Your task to perform on an android device: Go to internet settings Image 0: 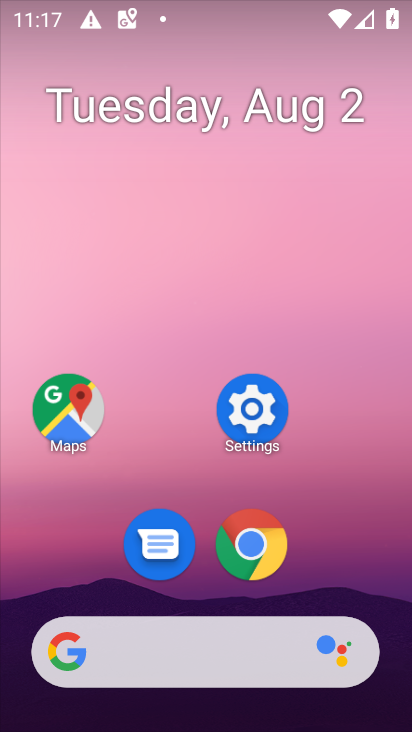
Step 0: click (252, 412)
Your task to perform on an android device: Go to internet settings Image 1: 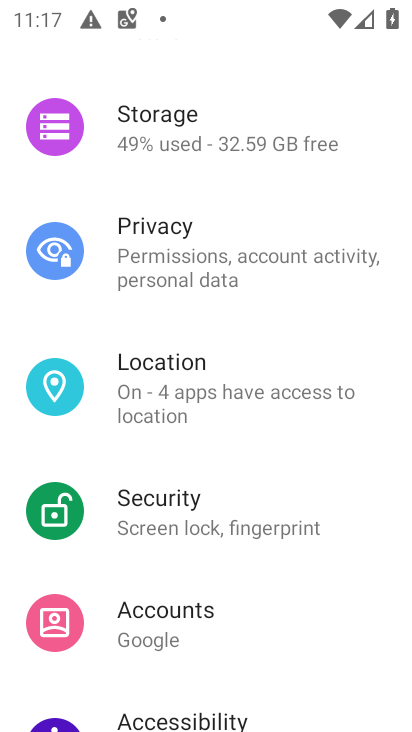
Step 1: drag from (310, 200) to (377, 671)
Your task to perform on an android device: Go to internet settings Image 2: 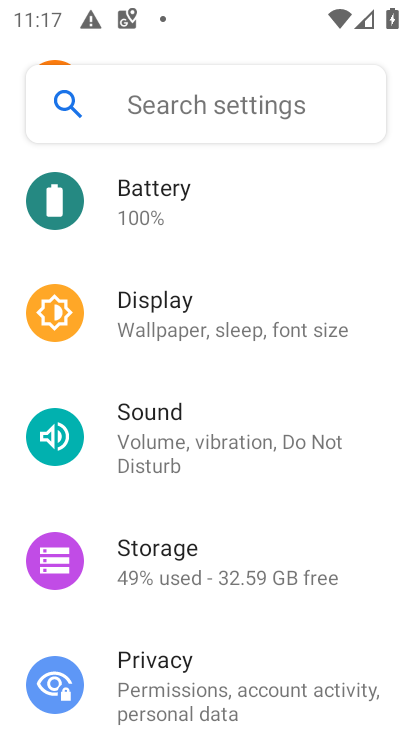
Step 2: drag from (331, 204) to (307, 699)
Your task to perform on an android device: Go to internet settings Image 3: 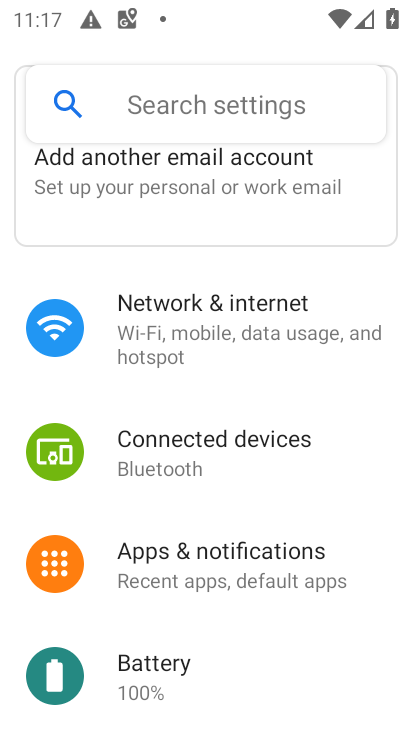
Step 3: click (224, 316)
Your task to perform on an android device: Go to internet settings Image 4: 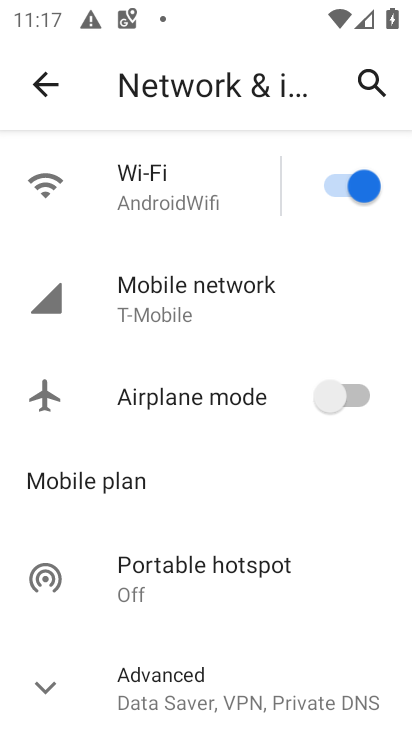
Step 4: click (156, 189)
Your task to perform on an android device: Go to internet settings Image 5: 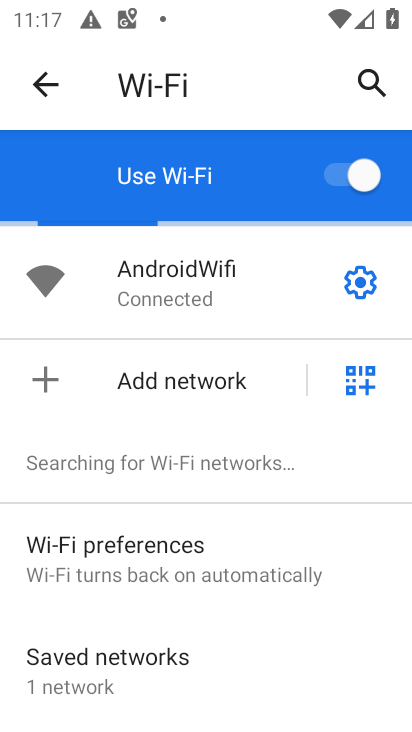
Step 5: task complete